Your task to perform on an android device: Open internet settings Image 0: 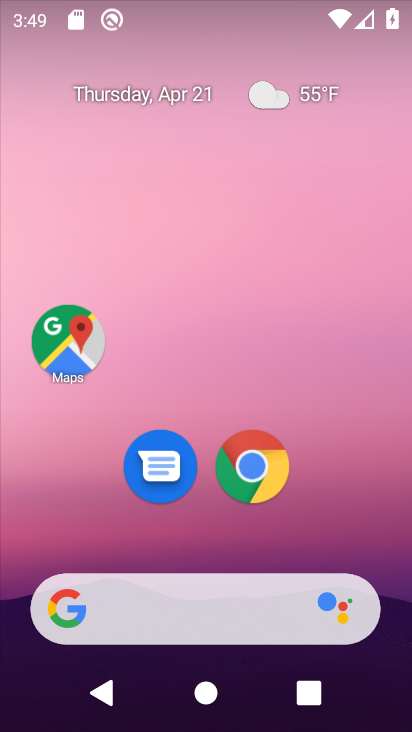
Step 0: drag from (293, 416) to (322, 32)
Your task to perform on an android device: Open internet settings Image 1: 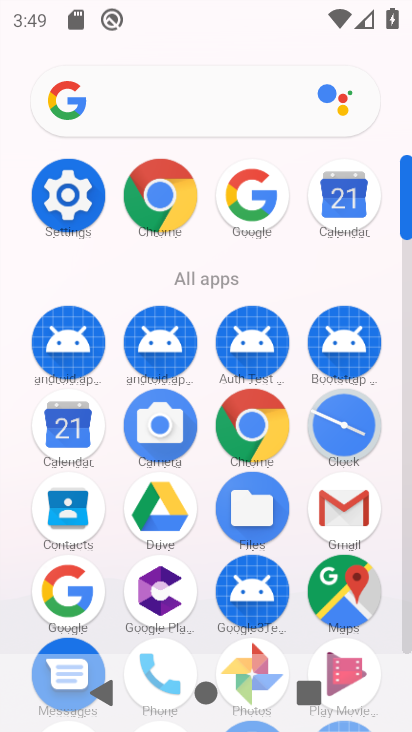
Step 1: click (74, 190)
Your task to perform on an android device: Open internet settings Image 2: 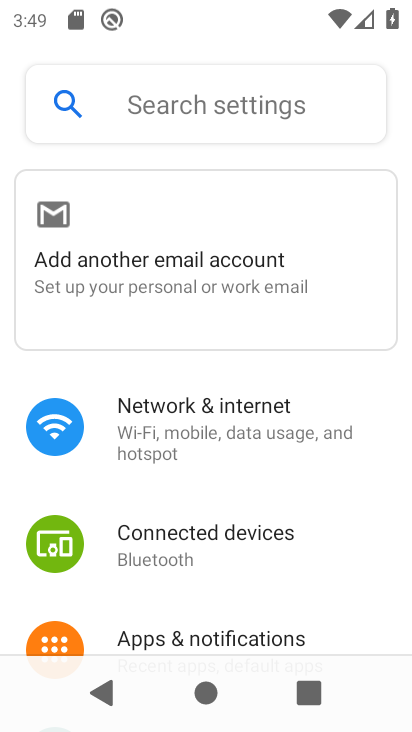
Step 2: click (253, 427)
Your task to perform on an android device: Open internet settings Image 3: 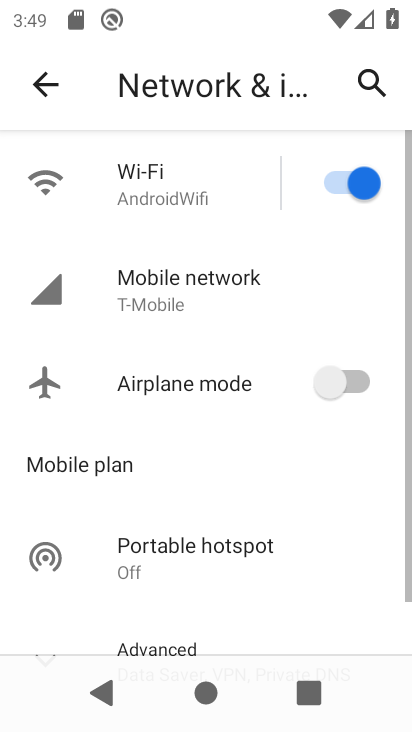
Step 3: click (198, 291)
Your task to perform on an android device: Open internet settings Image 4: 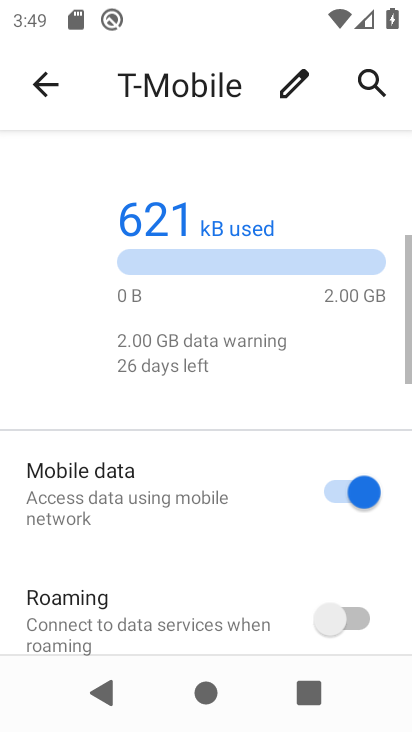
Step 4: task complete